Your task to perform on an android device: Go to Wikipedia Image 0: 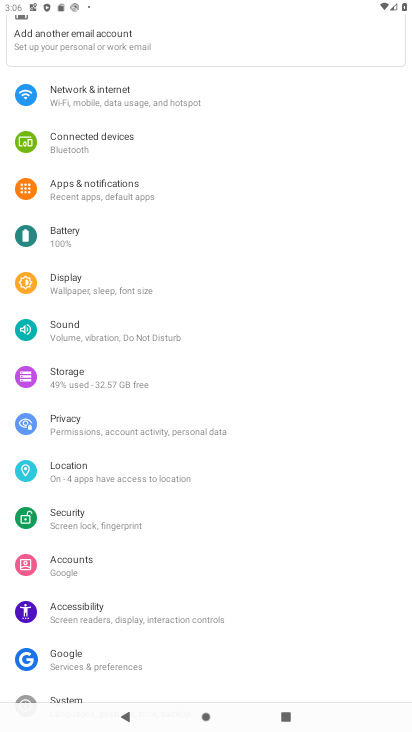
Step 0: press home button
Your task to perform on an android device: Go to Wikipedia Image 1: 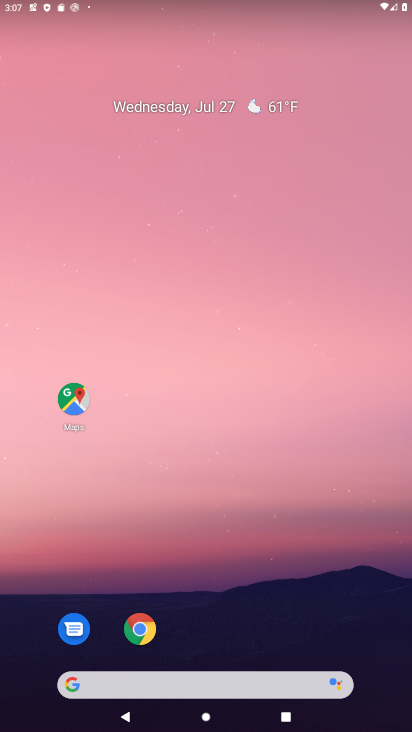
Step 1: click (140, 627)
Your task to perform on an android device: Go to Wikipedia Image 2: 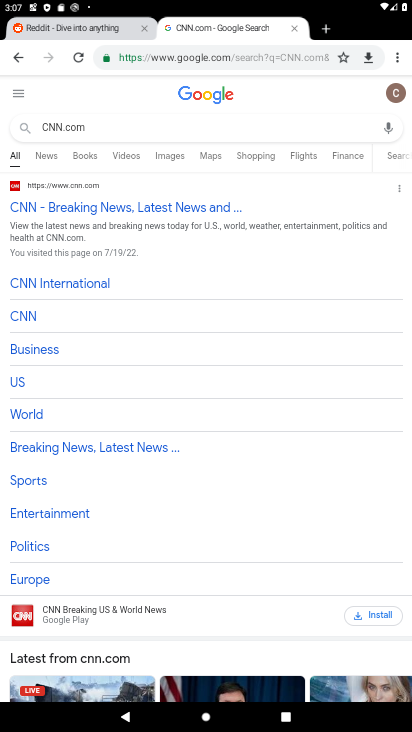
Step 2: click (232, 58)
Your task to perform on an android device: Go to Wikipedia Image 3: 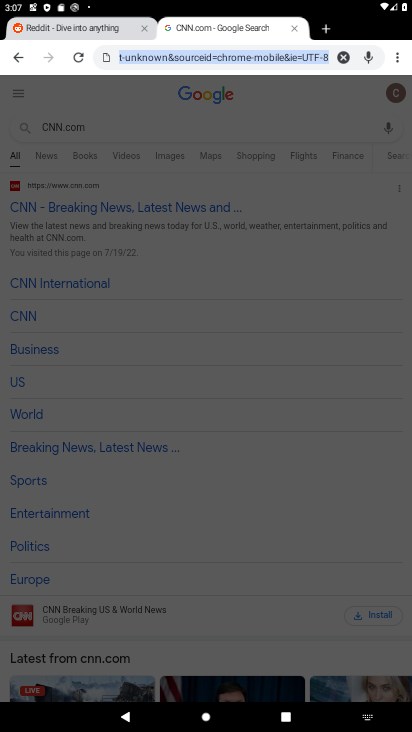
Step 3: type "Wikipedia"
Your task to perform on an android device: Go to Wikipedia Image 4: 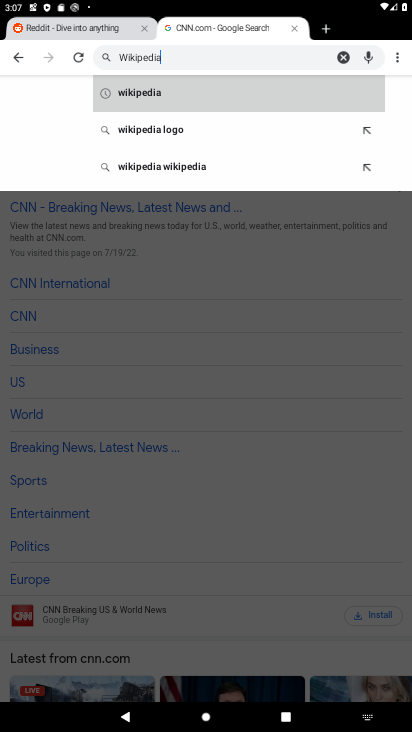
Step 4: click (163, 93)
Your task to perform on an android device: Go to Wikipedia Image 5: 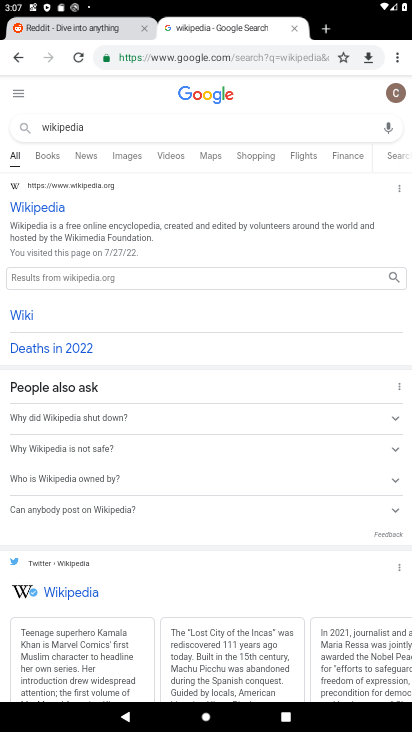
Step 5: click (46, 213)
Your task to perform on an android device: Go to Wikipedia Image 6: 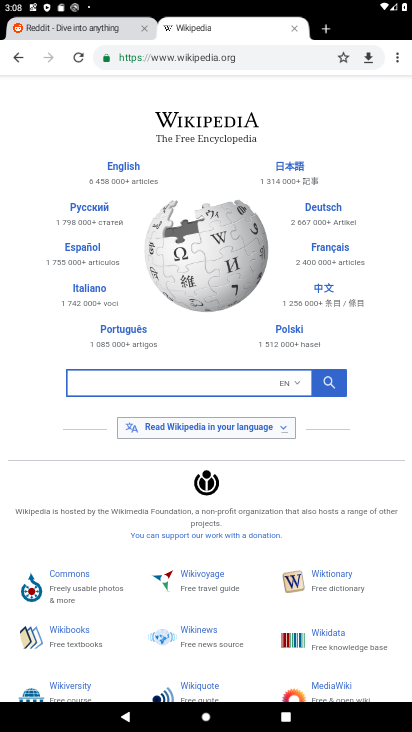
Step 6: task complete